Your task to perform on an android device: change your default location settings in chrome Image 0: 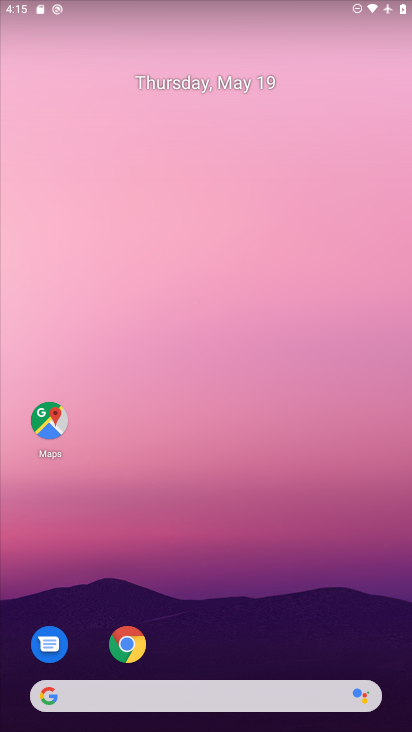
Step 0: drag from (242, 587) to (219, 56)
Your task to perform on an android device: change your default location settings in chrome Image 1: 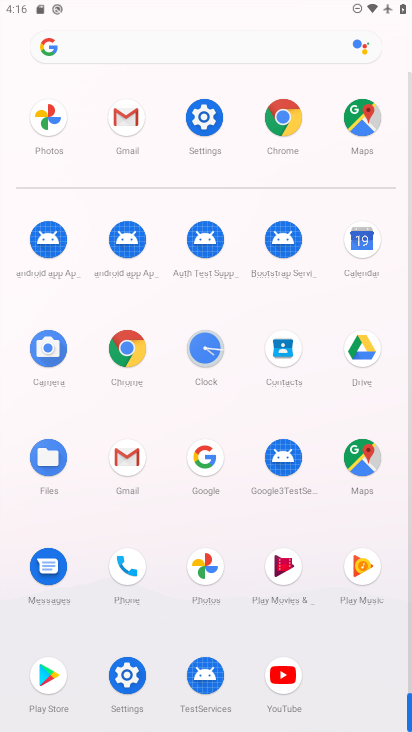
Step 1: drag from (21, 590) to (3, 316)
Your task to perform on an android device: change your default location settings in chrome Image 2: 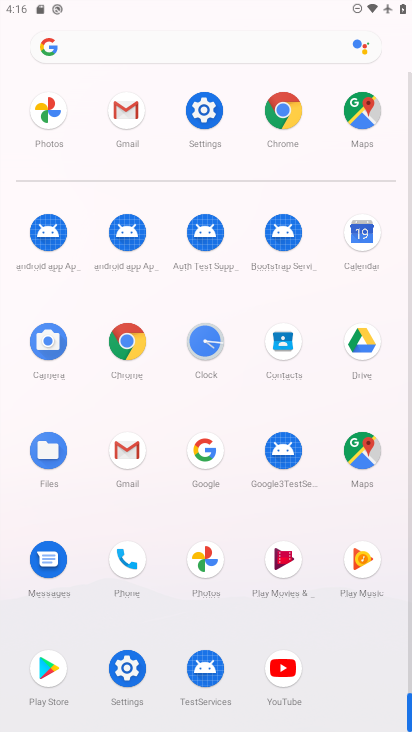
Step 2: click (125, 344)
Your task to perform on an android device: change your default location settings in chrome Image 3: 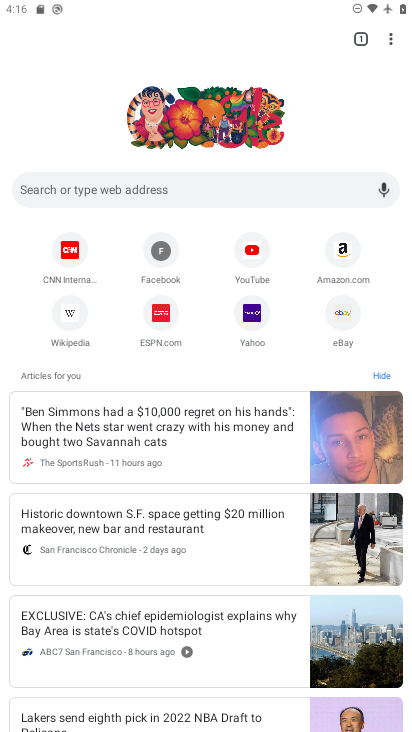
Step 3: drag from (387, 31) to (253, 324)
Your task to perform on an android device: change your default location settings in chrome Image 4: 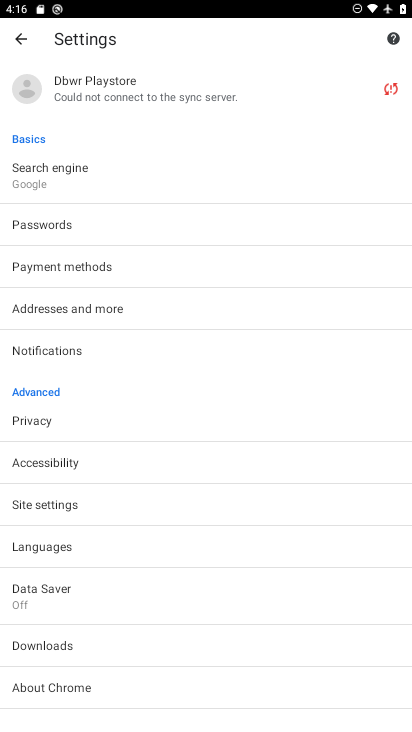
Step 4: click (66, 511)
Your task to perform on an android device: change your default location settings in chrome Image 5: 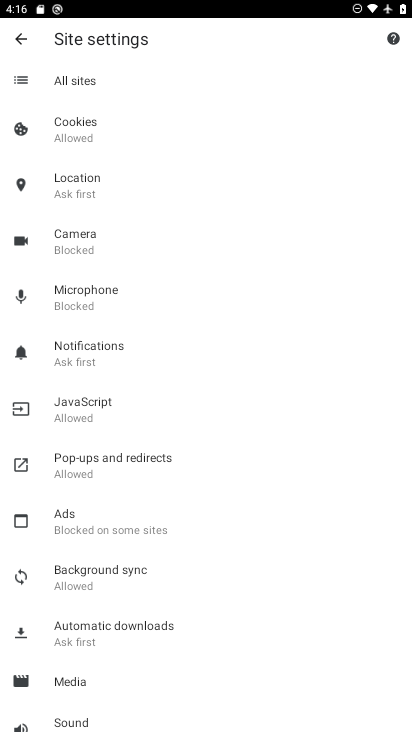
Step 5: click (93, 176)
Your task to perform on an android device: change your default location settings in chrome Image 6: 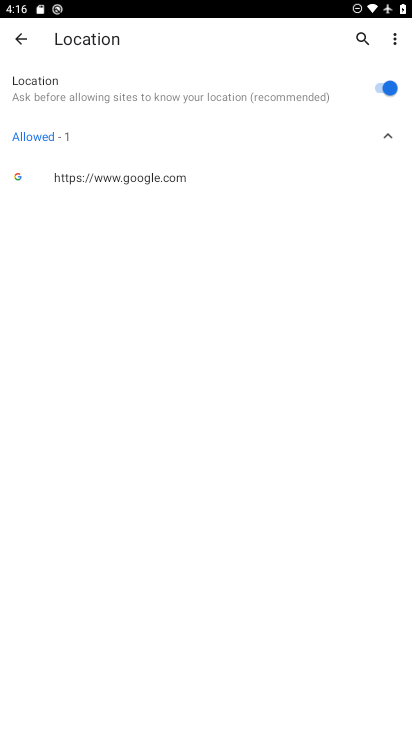
Step 6: click (377, 83)
Your task to perform on an android device: change your default location settings in chrome Image 7: 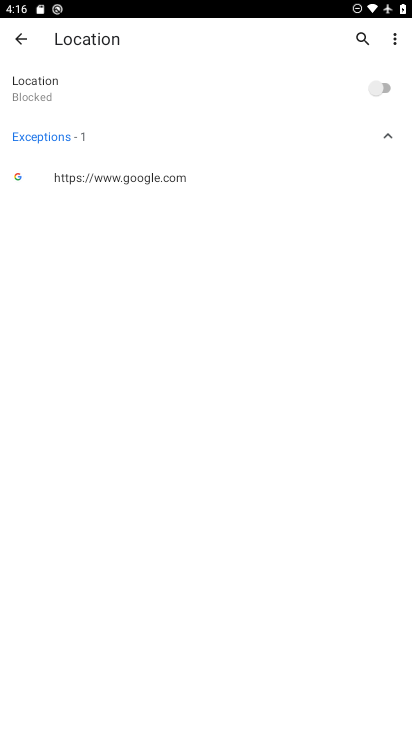
Step 7: task complete